Your task to perform on an android device: check google app version Image 0: 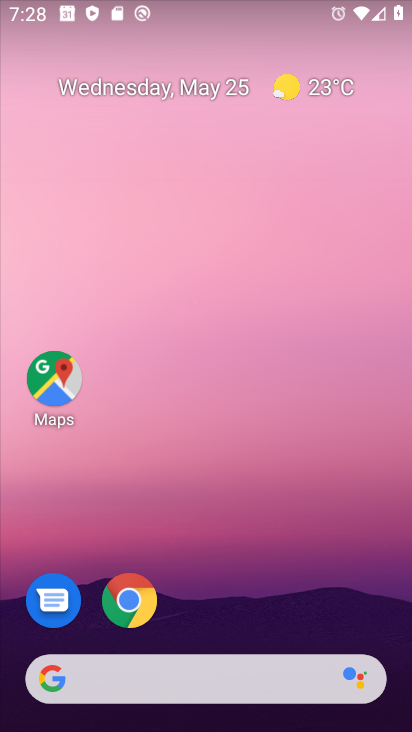
Step 0: drag from (266, 593) to (208, 69)
Your task to perform on an android device: check google app version Image 1: 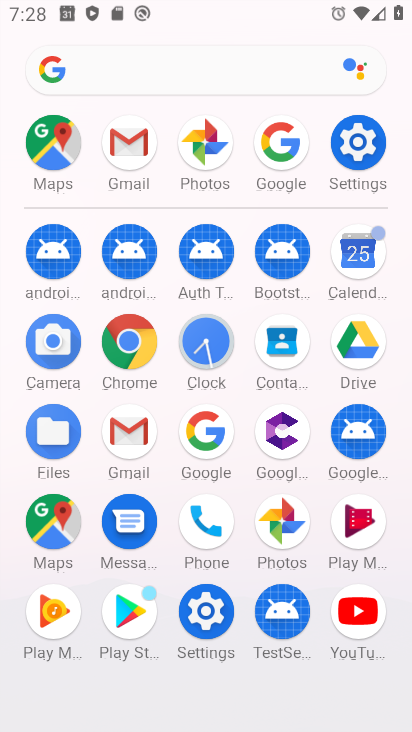
Step 1: click (203, 432)
Your task to perform on an android device: check google app version Image 2: 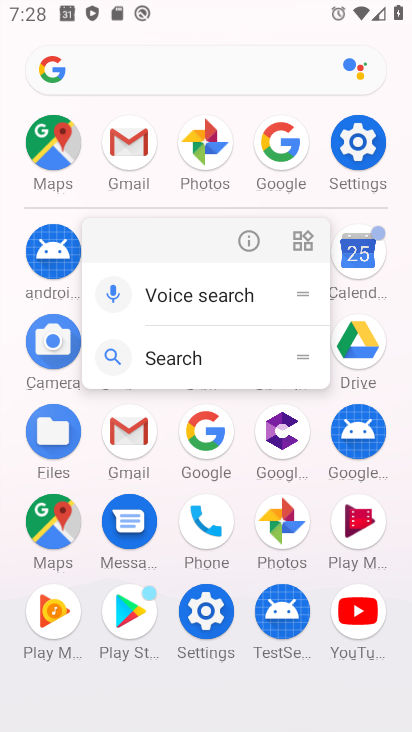
Step 2: click (247, 235)
Your task to perform on an android device: check google app version Image 3: 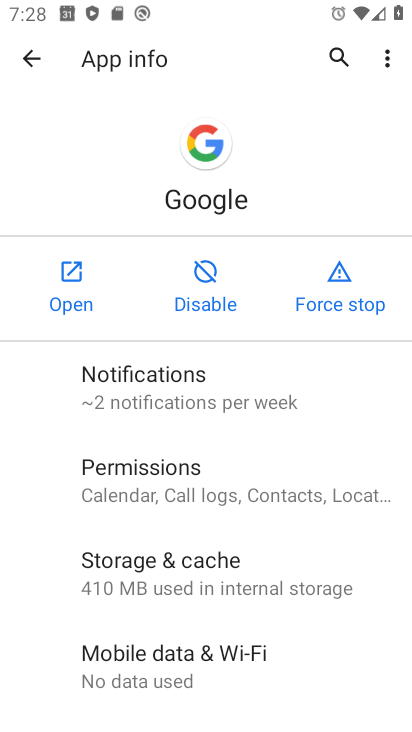
Step 3: drag from (188, 533) to (274, 411)
Your task to perform on an android device: check google app version Image 4: 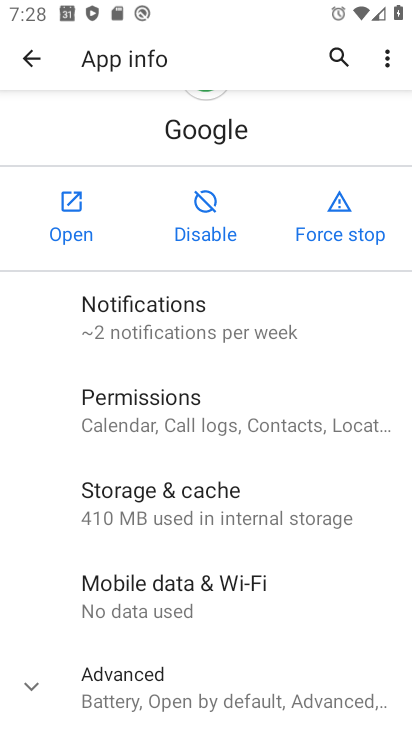
Step 4: drag from (146, 635) to (210, 532)
Your task to perform on an android device: check google app version Image 5: 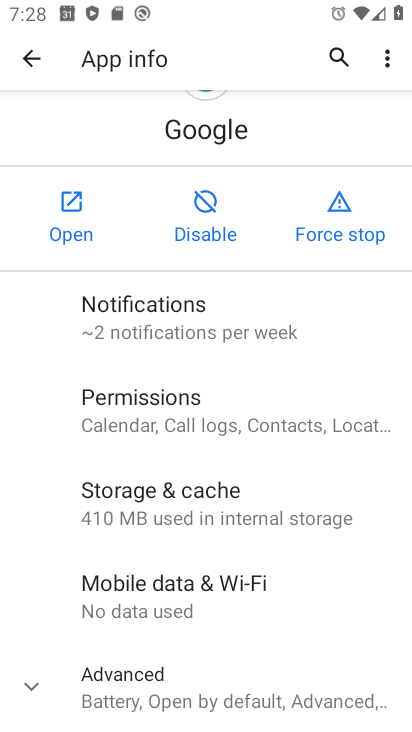
Step 5: click (195, 707)
Your task to perform on an android device: check google app version Image 6: 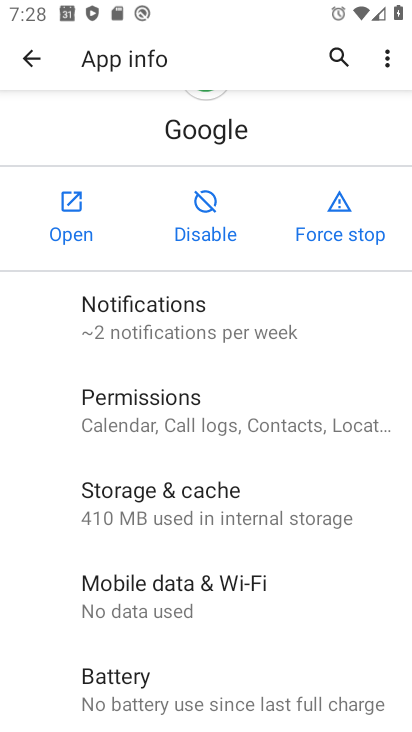
Step 6: task complete